Your task to perform on an android device: turn off data saver in the chrome app Image 0: 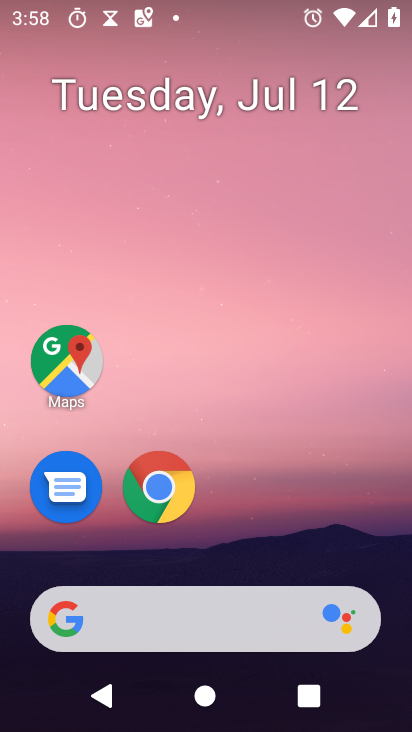
Step 0: click (167, 493)
Your task to perform on an android device: turn off data saver in the chrome app Image 1: 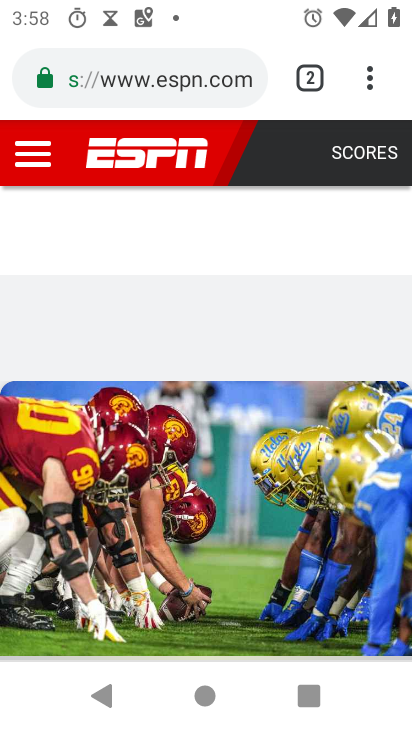
Step 1: click (365, 75)
Your task to perform on an android device: turn off data saver in the chrome app Image 2: 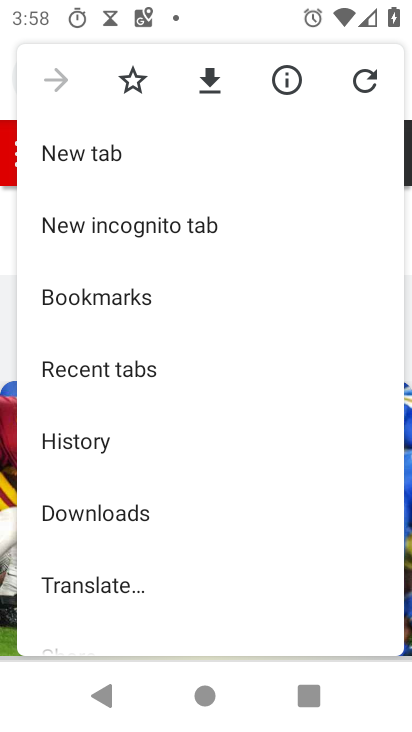
Step 2: drag from (167, 614) to (171, 318)
Your task to perform on an android device: turn off data saver in the chrome app Image 3: 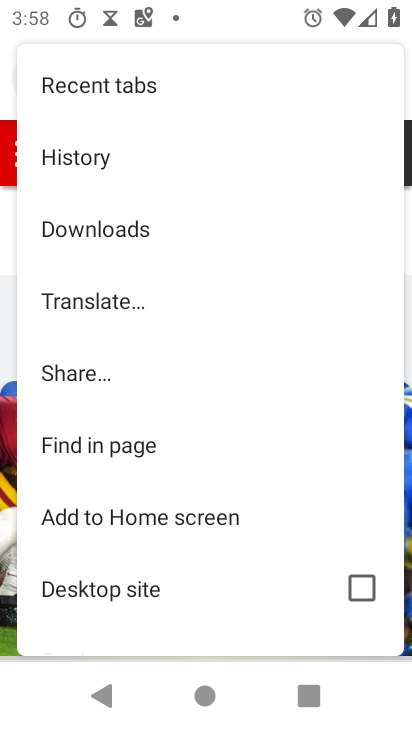
Step 3: drag from (113, 603) to (170, 261)
Your task to perform on an android device: turn off data saver in the chrome app Image 4: 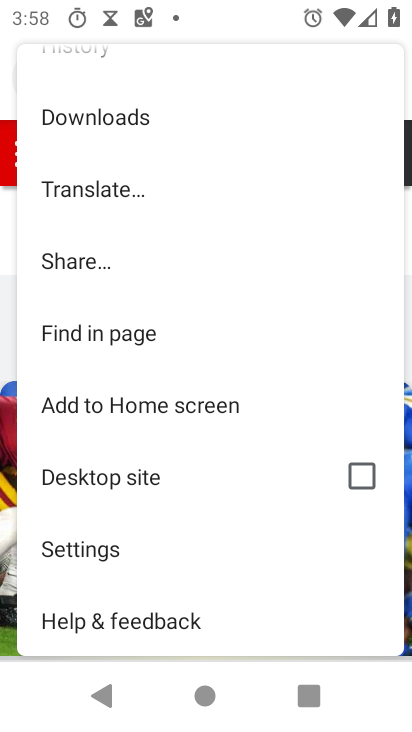
Step 4: click (101, 550)
Your task to perform on an android device: turn off data saver in the chrome app Image 5: 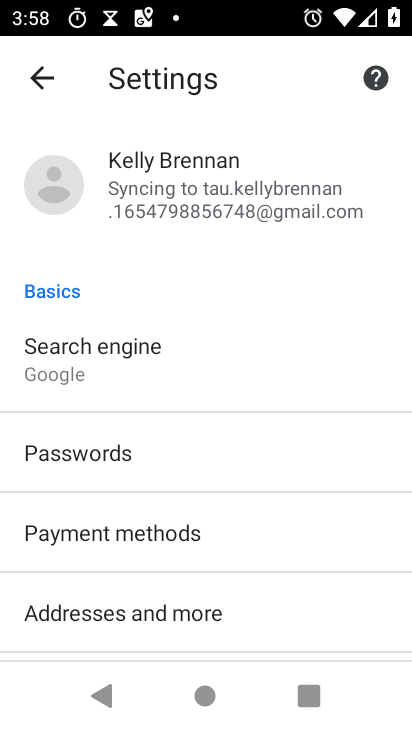
Step 5: drag from (86, 627) to (120, 343)
Your task to perform on an android device: turn off data saver in the chrome app Image 6: 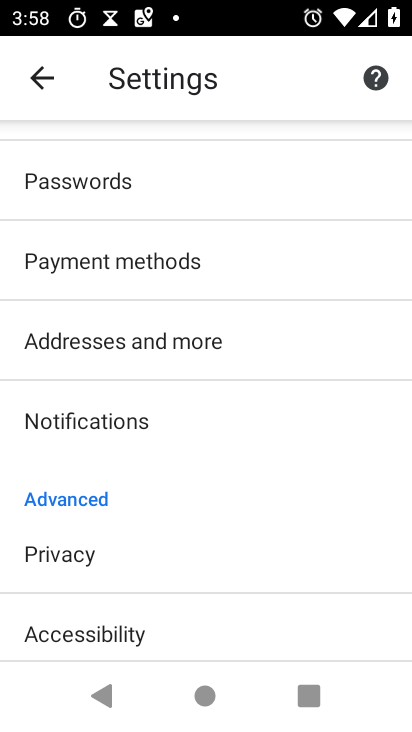
Step 6: drag from (102, 649) to (124, 299)
Your task to perform on an android device: turn off data saver in the chrome app Image 7: 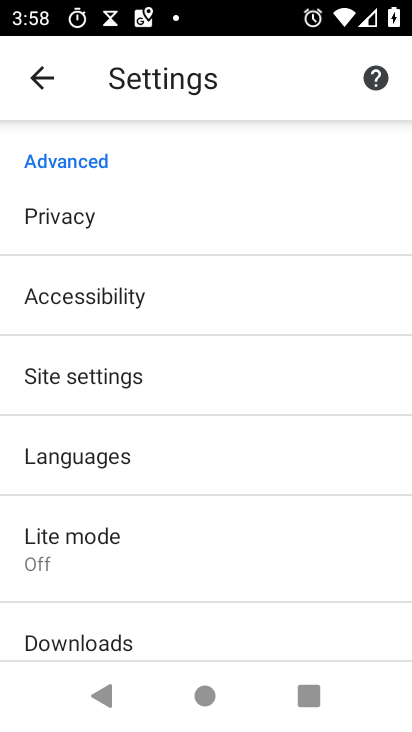
Step 7: click (70, 560)
Your task to perform on an android device: turn off data saver in the chrome app Image 8: 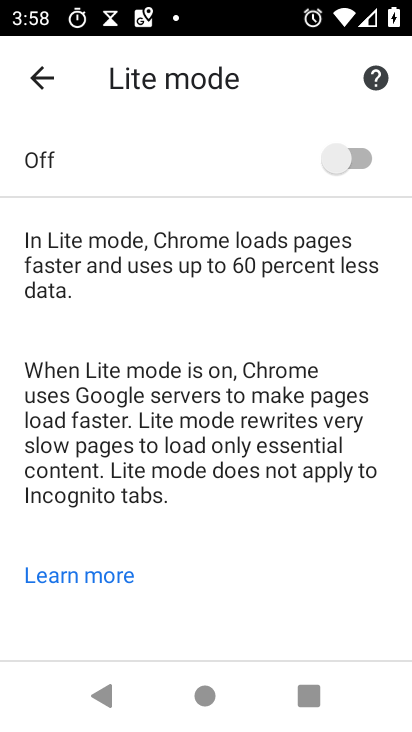
Step 8: task complete